Your task to perform on an android device: Open Chrome and go to the settings page Image 0: 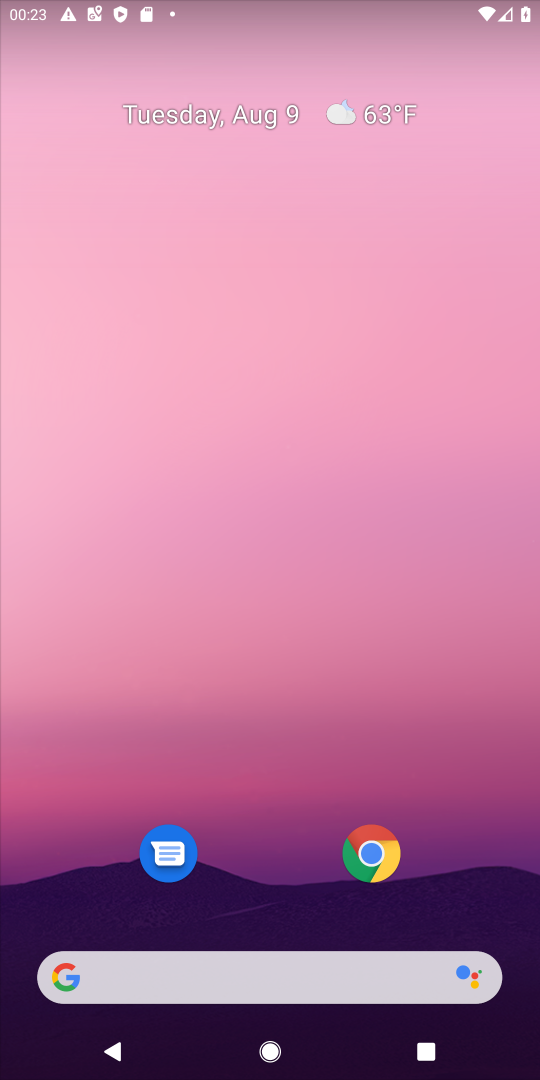
Step 0: click (380, 845)
Your task to perform on an android device: Open Chrome and go to the settings page Image 1: 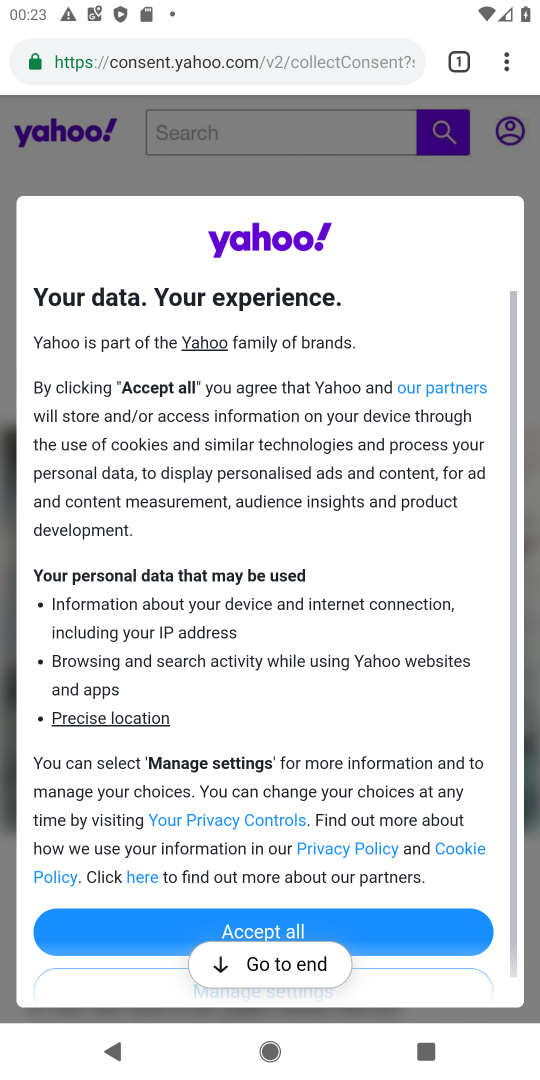
Step 1: click (506, 47)
Your task to perform on an android device: Open Chrome and go to the settings page Image 2: 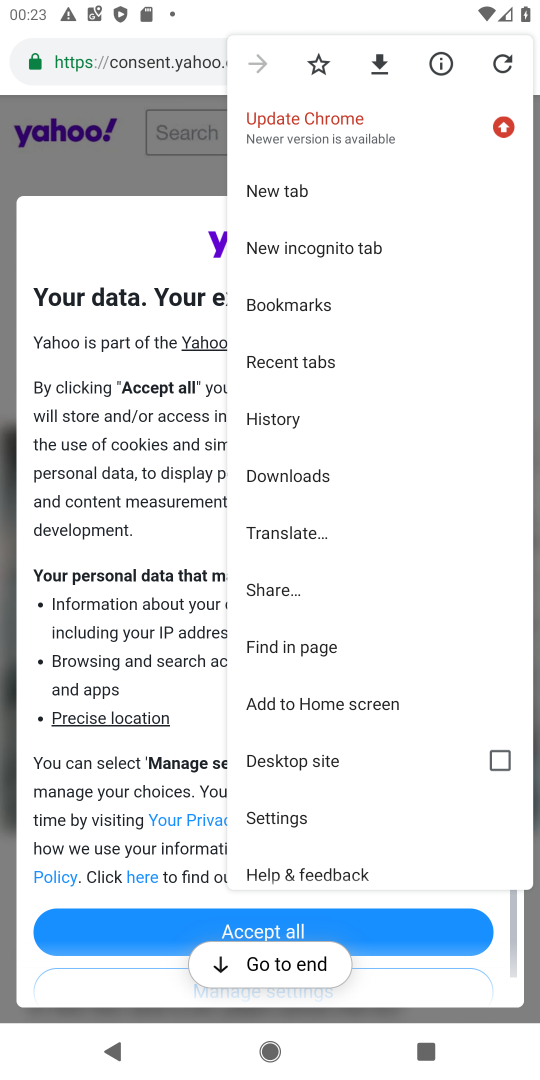
Step 2: click (319, 818)
Your task to perform on an android device: Open Chrome and go to the settings page Image 3: 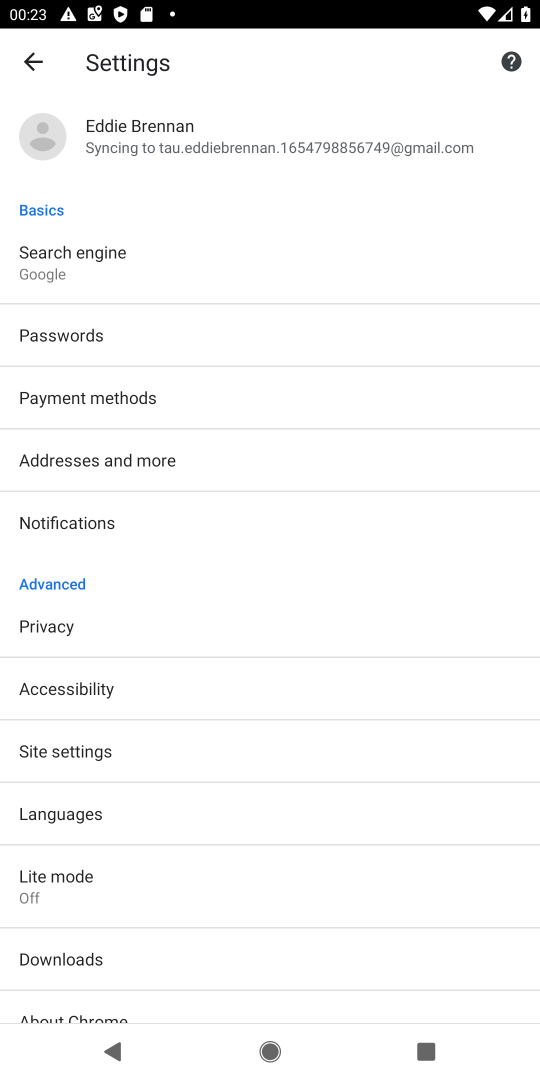
Step 3: task complete